Your task to perform on an android device: turn on data saver in the chrome app Image 0: 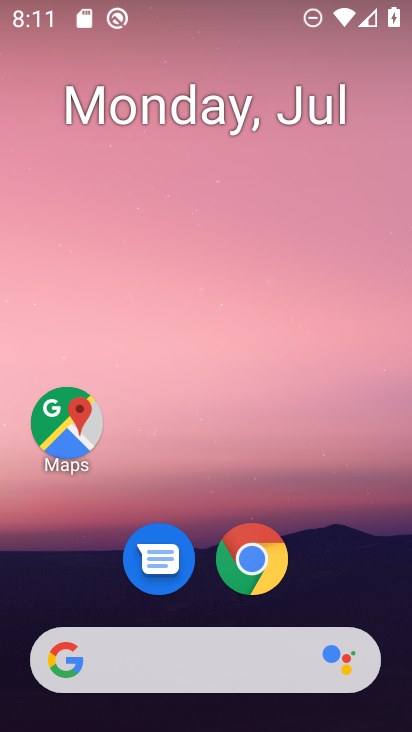
Step 0: click (250, 548)
Your task to perform on an android device: turn on data saver in the chrome app Image 1: 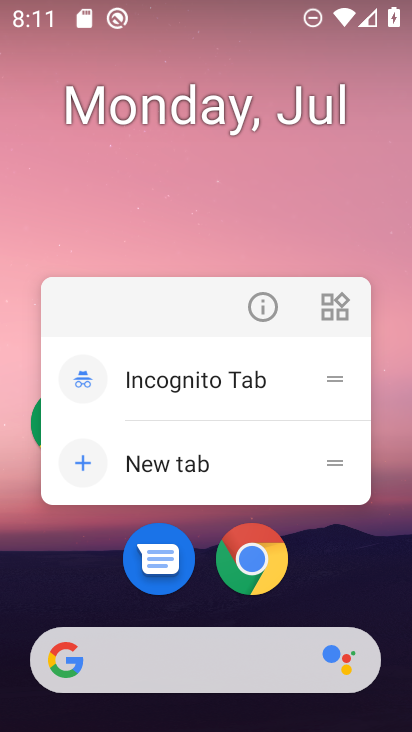
Step 1: click (275, 554)
Your task to perform on an android device: turn on data saver in the chrome app Image 2: 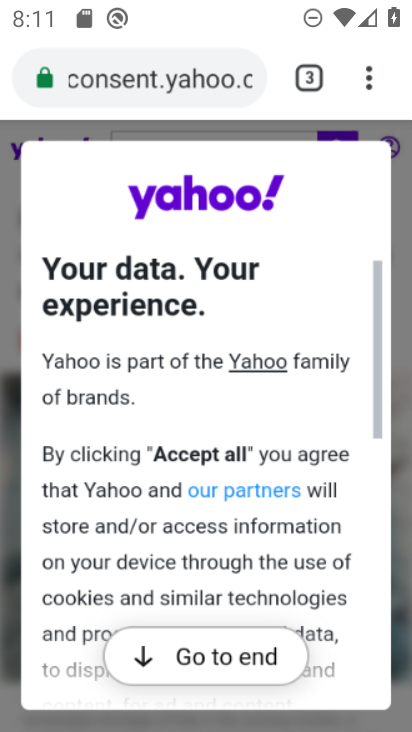
Step 2: drag from (365, 62) to (140, 613)
Your task to perform on an android device: turn on data saver in the chrome app Image 3: 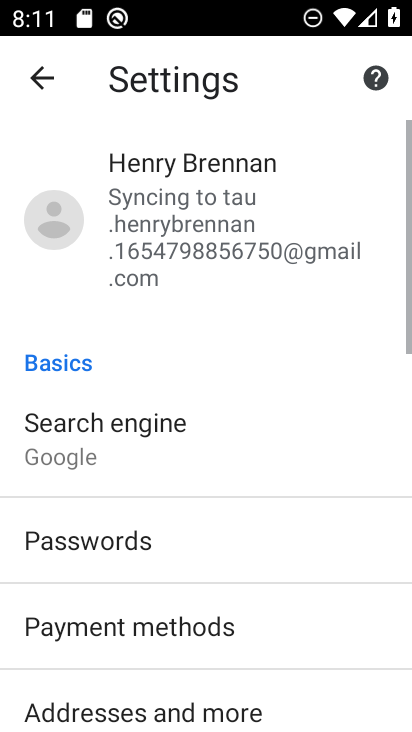
Step 3: drag from (164, 654) to (292, 127)
Your task to perform on an android device: turn on data saver in the chrome app Image 4: 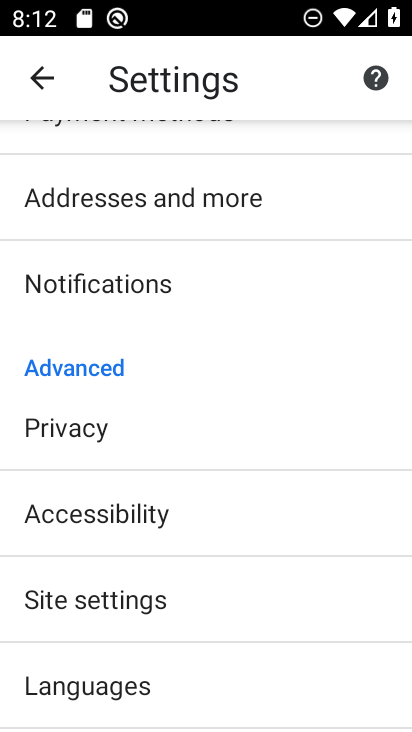
Step 4: drag from (173, 672) to (208, 174)
Your task to perform on an android device: turn on data saver in the chrome app Image 5: 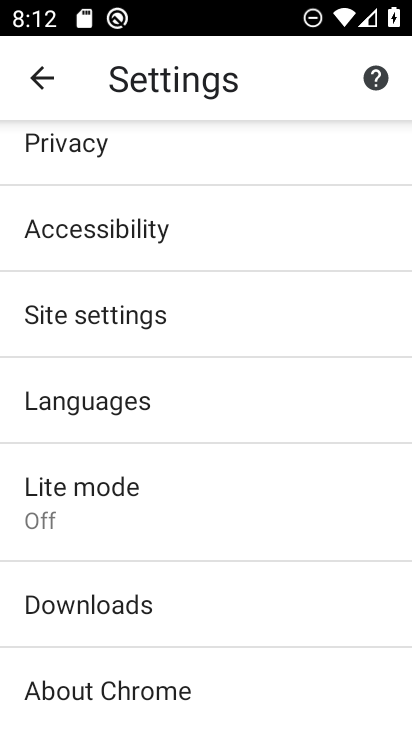
Step 5: click (86, 521)
Your task to perform on an android device: turn on data saver in the chrome app Image 6: 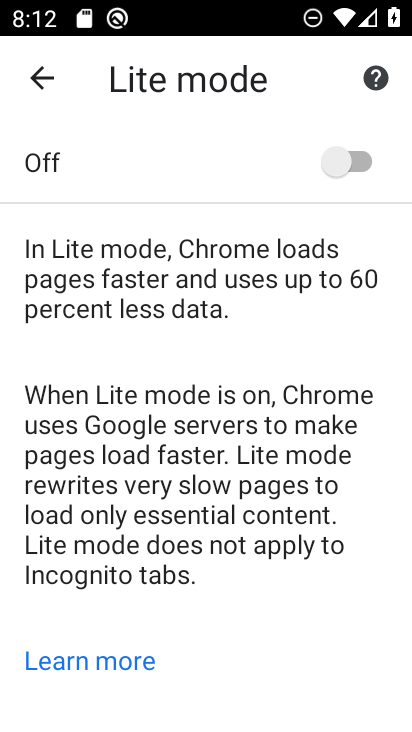
Step 6: click (344, 163)
Your task to perform on an android device: turn on data saver in the chrome app Image 7: 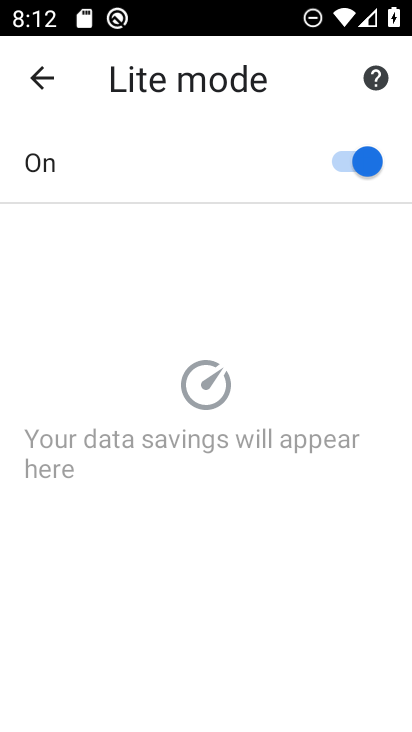
Step 7: task complete